Your task to perform on an android device: Open wifi settings Image 0: 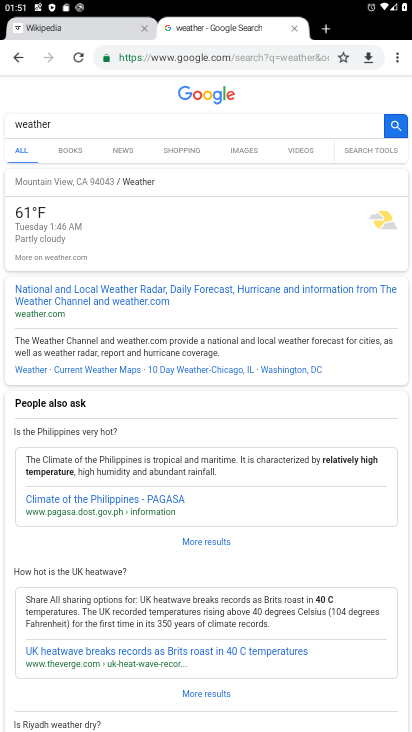
Step 0: press home button
Your task to perform on an android device: Open wifi settings Image 1: 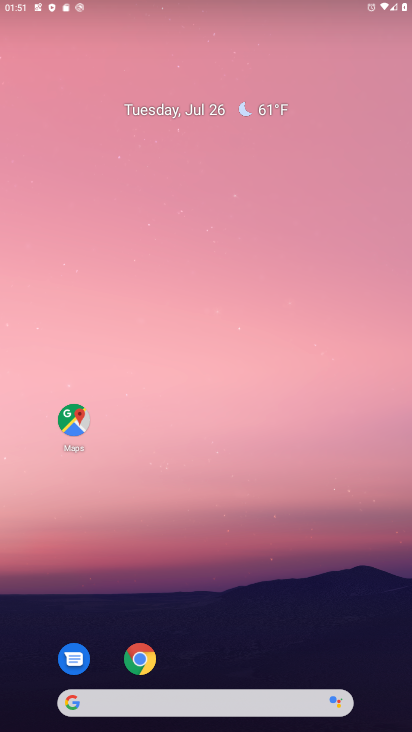
Step 1: drag from (336, 611) to (199, 19)
Your task to perform on an android device: Open wifi settings Image 2: 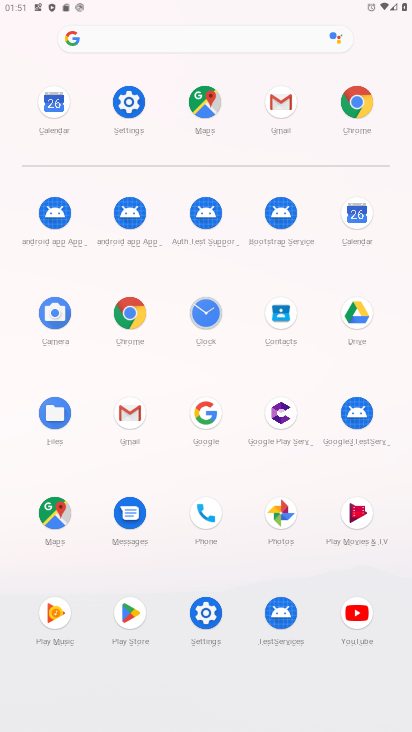
Step 2: click (118, 110)
Your task to perform on an android device: Open wifi settings Image 3: 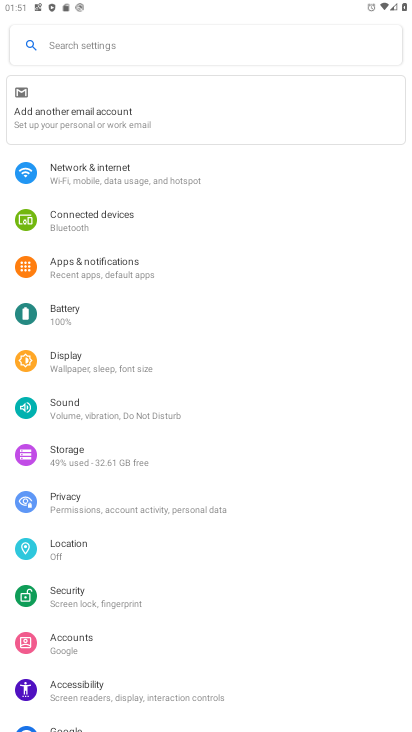
Step 3: click (112, 181)
Your task to perform on an android device: Open wifi settings Image 4: 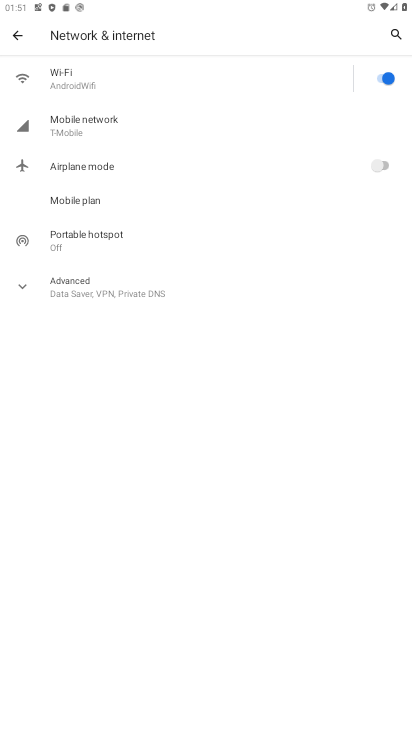
Step 4: click (122, 82)
Your task to perform on an android device: Open wifi settings Image 5: 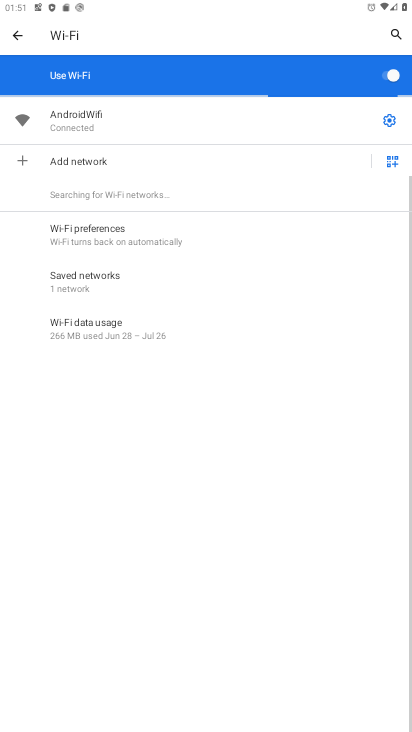
Step 5: click (393, 117)
Your task to perform on an android device: Open wifi settings Image 6: 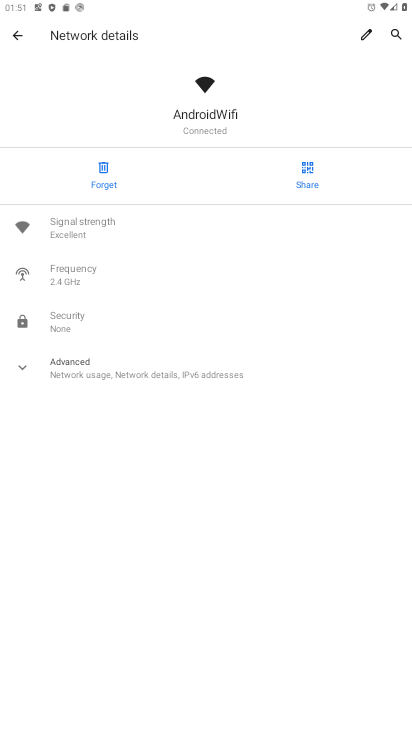
Step 6: task complete